Your task to perform on an android device: Go to privacy settings Image 0: 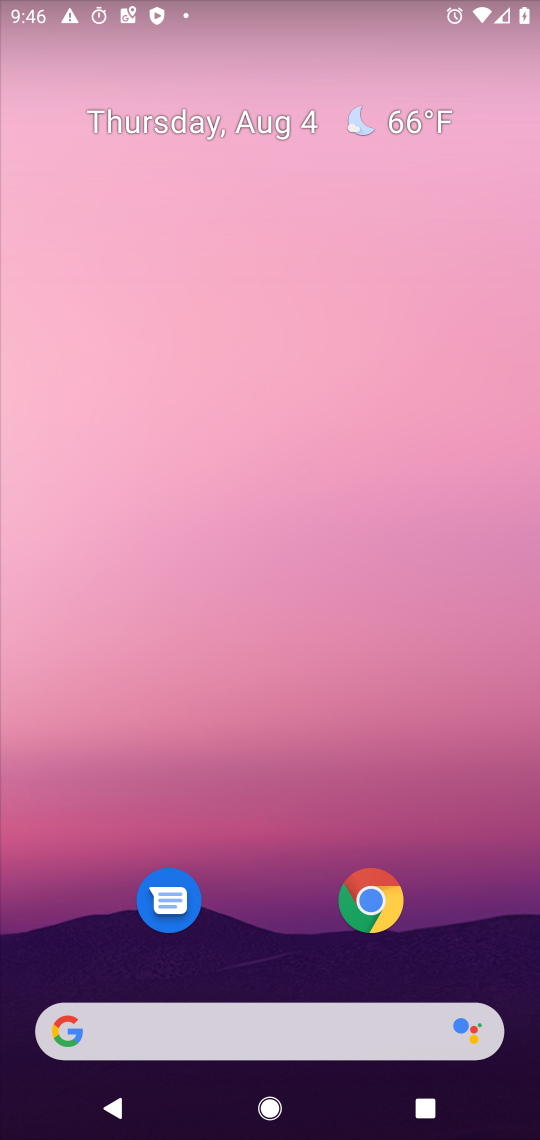
Step 0: drag from (197, 1030) to (441, 157)
Your task to perform on an android device: Go to privacy settings Image 1: 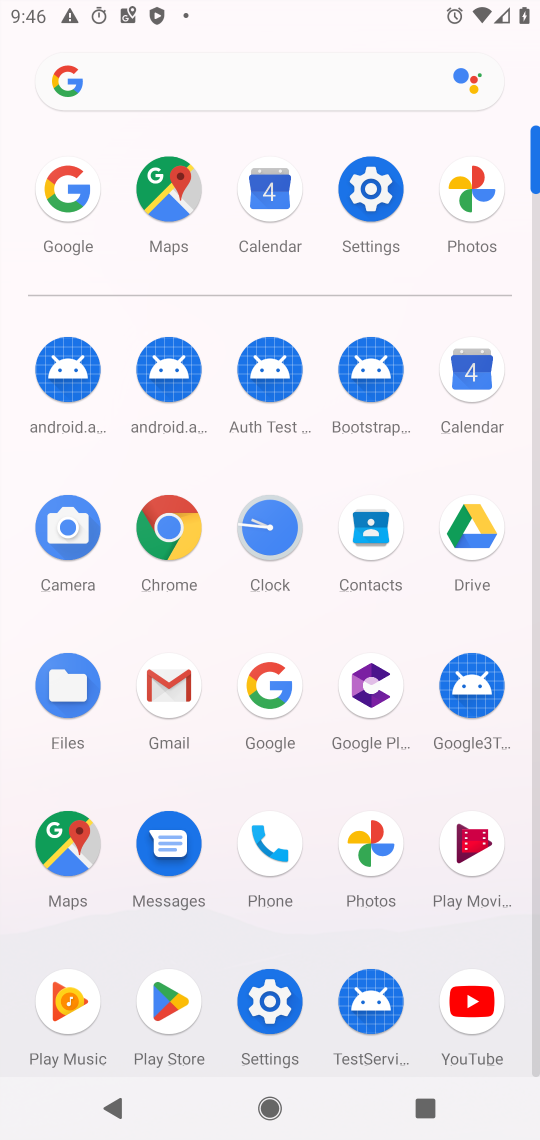
Step 1: click (370, 190)
Your task to perform on an android device: Go to privacy settings Image 2: 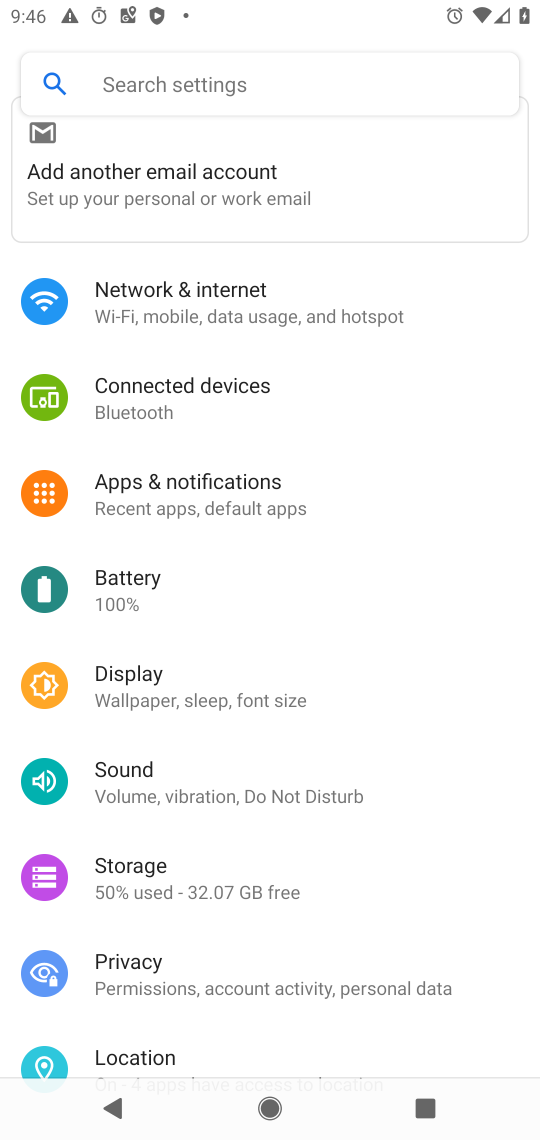
Step 2: click (204, 990)
Your task to perform on an android device: Go to privacy settings Image 3: 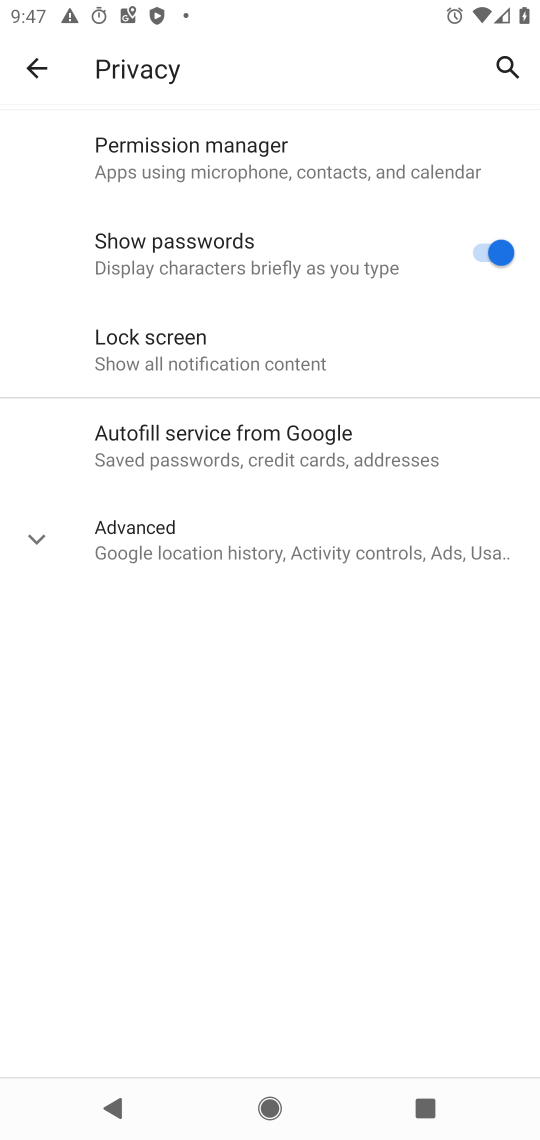
Step 3: task complete